Your task to perform on an android device: toggle notification dots Image 0: 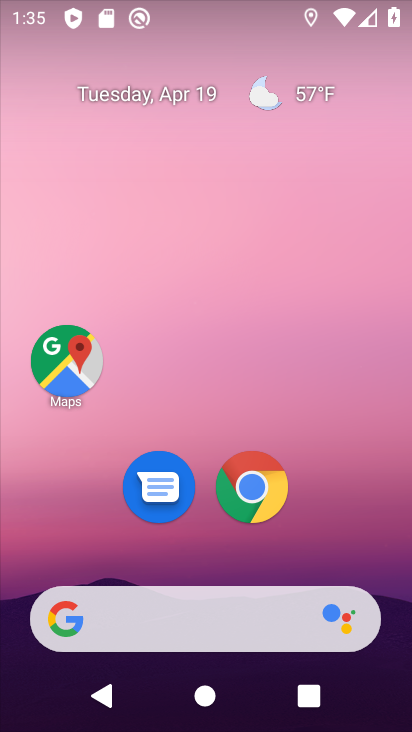
Step 0: drag from (380, 513) to (353, 109)
Your task to perform on an android device: toggle notification dots Image 1: 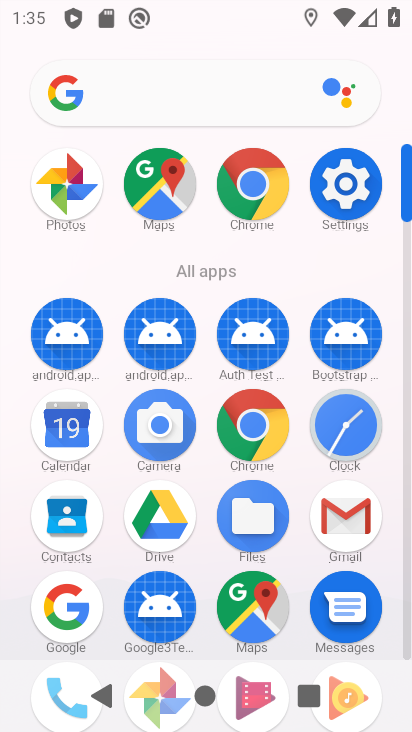
Step 1: click (336, 196)
Your task to perform on an android device: toggle notification dots Image 2: 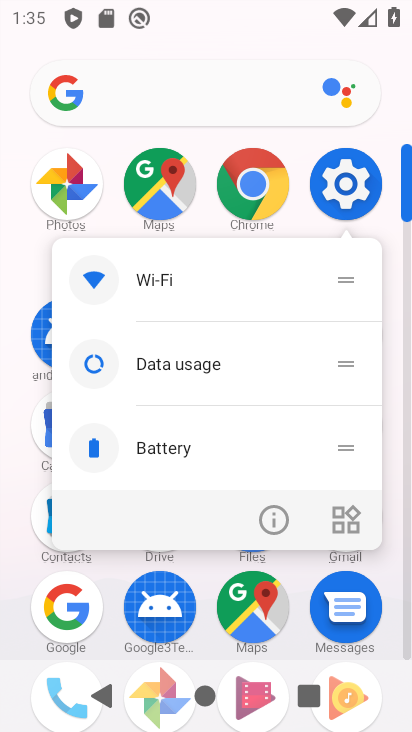
Step 2: click (333, 201)
Your task to perform on an android device: toggle notification dots Image 3: 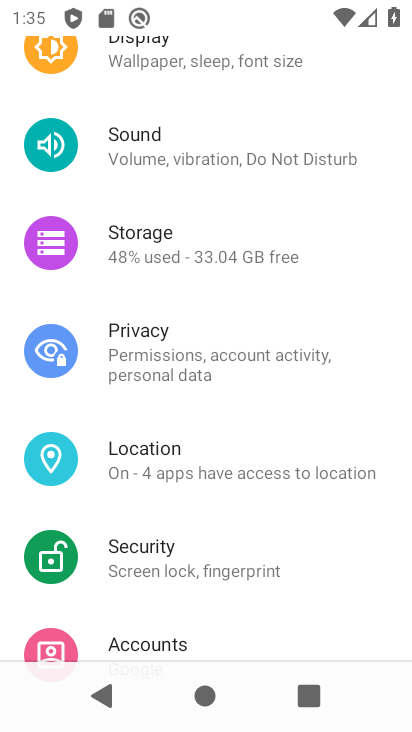
Step 3: drag from (257, 510) to (272, 154)
Your task to perform on an android device: toggle notification dots Image 4: 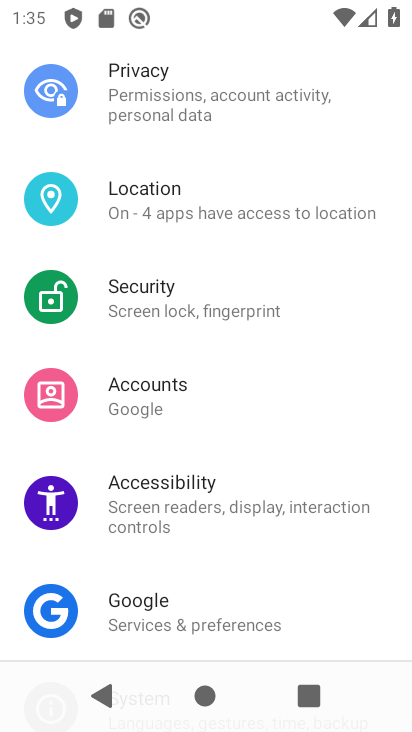
Step 4: drag from (288, 185) to (309, 605)
Your task to perform on an android device: toggle notification dots Image 5: 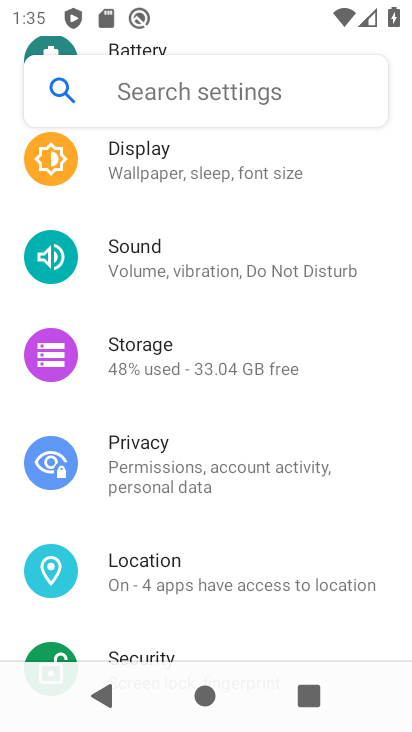
Step 5: drag from (336, 196) to (350, 602)
Your task to perform on an android device: toggle notification dots Image 6: 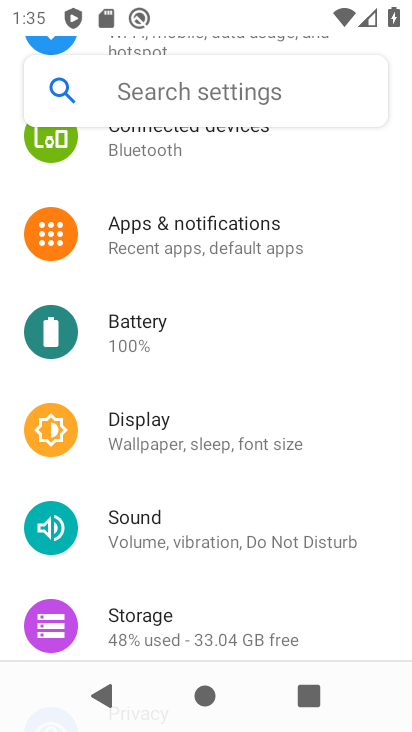
Step 6: click (246, 237)
Your task to perform on an android device: toggle notification dots Image 7: 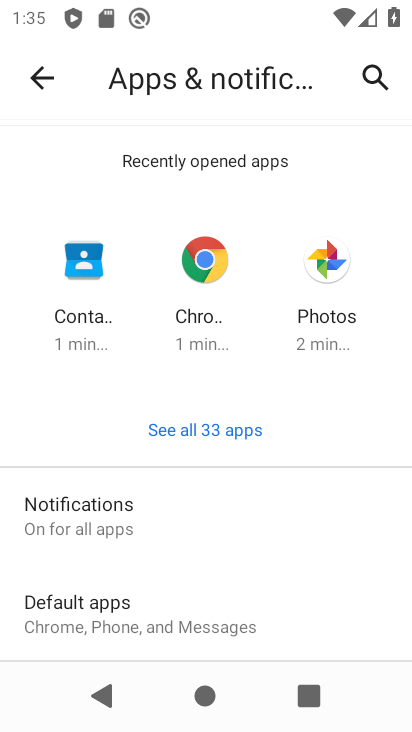
Step 7: click (89, 506)
Your task to perform on an android device: toggle notification dots Image 8: 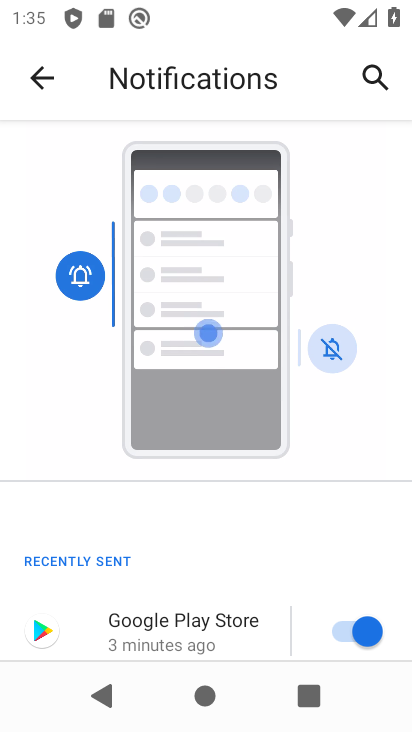
Step 8: drag from (276, 576) to (303, 154)
Your task to perform on an android device: toggle notification dots Image 9: 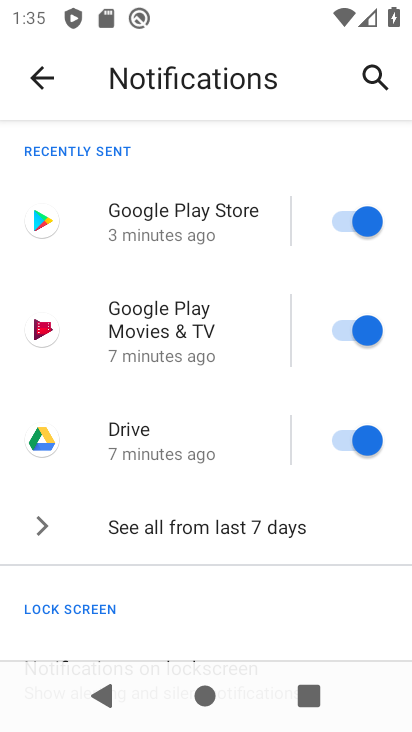
Step 9: drag from (181, 605) to (225, 238)
Your task to perform on an android device: toggle notification dots Image 10: 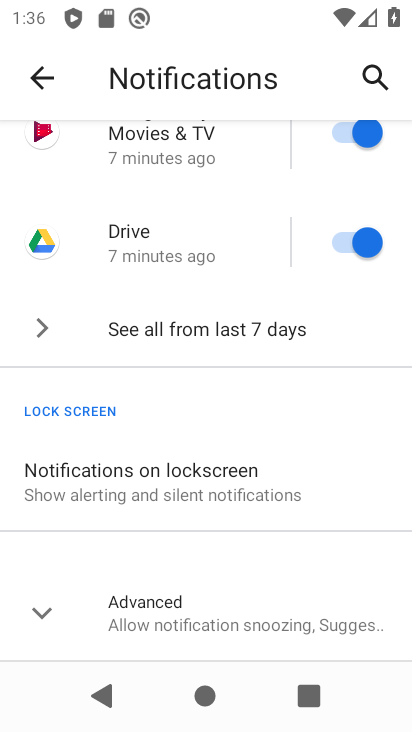
Step 10: click (235, 613)
Your task to perform on an android device: toggle notification dots Image 11: 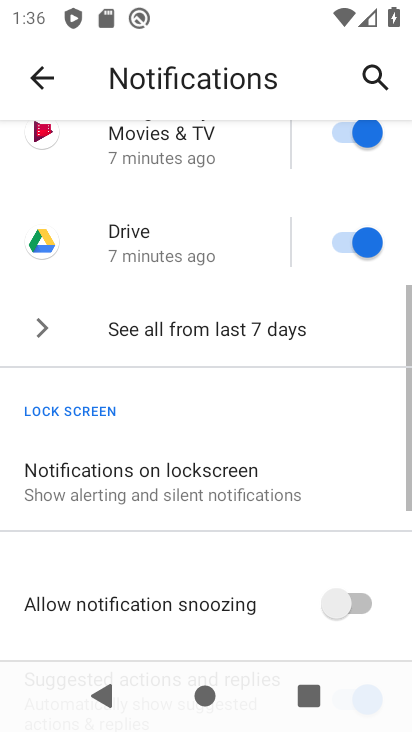
Step 11: drag from (238, 574) to (261, 221)
Your task to perform on an android device: toggle notification dots Image 12: 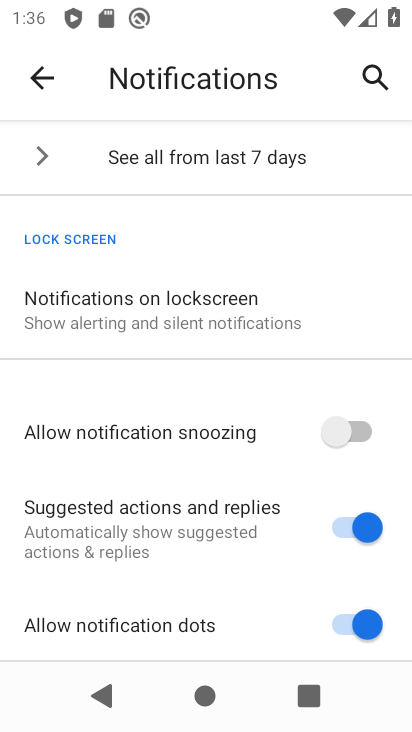
Step 12: click (345, 624)
Your task to perform on an android device: toggle notification dots Image 13: 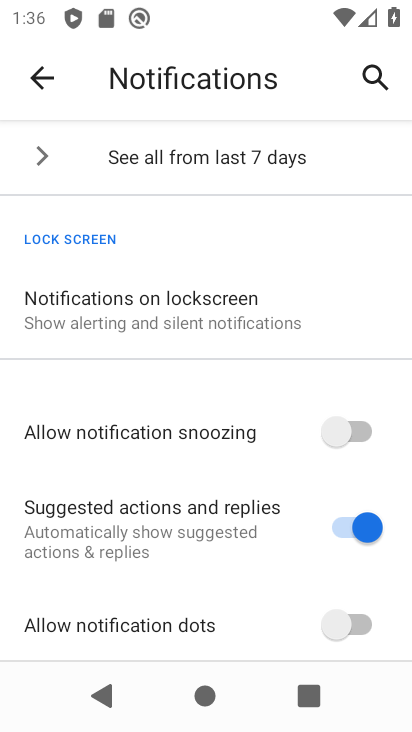
Step 13: task complete